Your task to perform on an android device: change alarm snooze length Image 0: 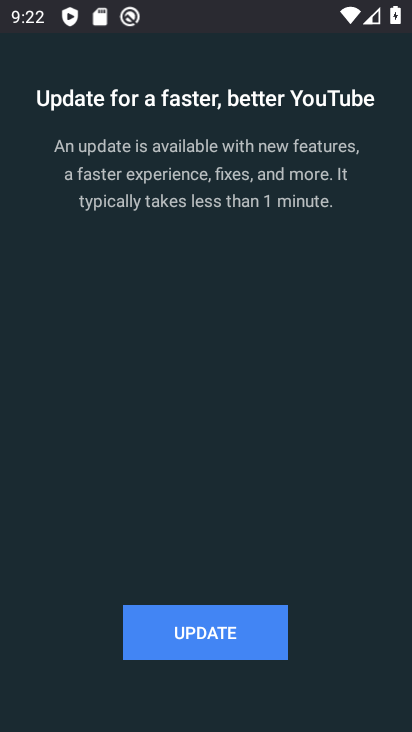
Step 0: press home button
Your task to perform on an android device: change alarm snooze length Image 1: 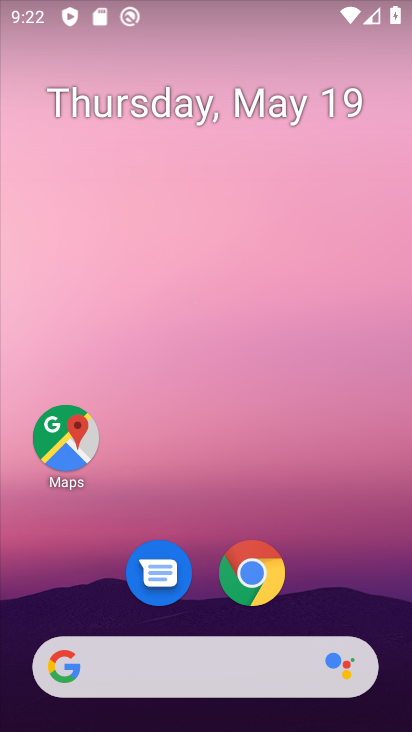
Step 1: drag from (209, 608) to (215, 271)
Your task to perform on an android device: change alarm snooze length Image 2: 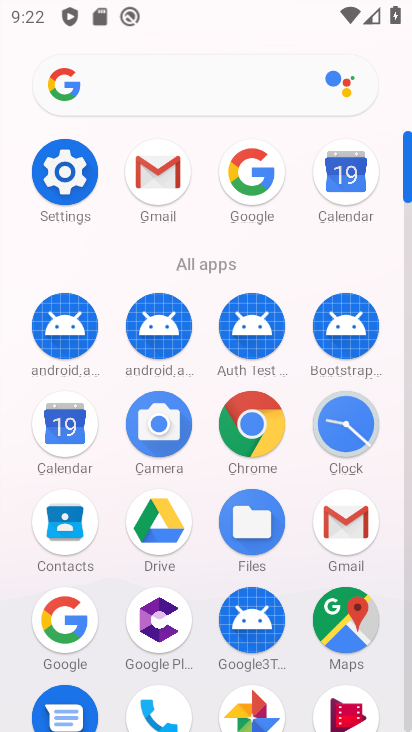
Step 2: click (337, 411)
Your task to perform on an android device: change alarm snooze length Image 3: 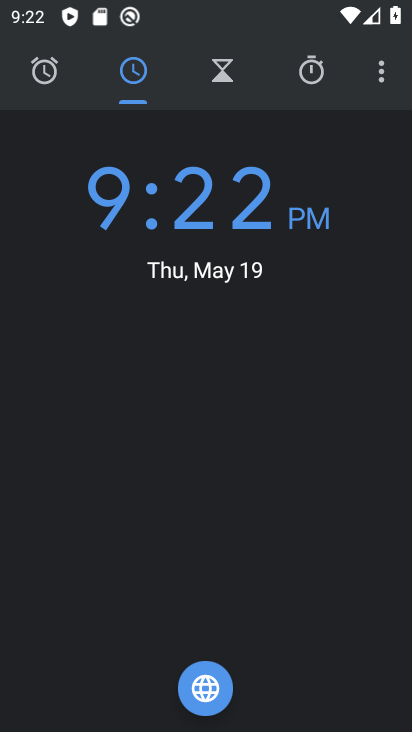
Step 3: click (382, 69)
Your task to perform on an android device: change alarm snooze length Image 4: 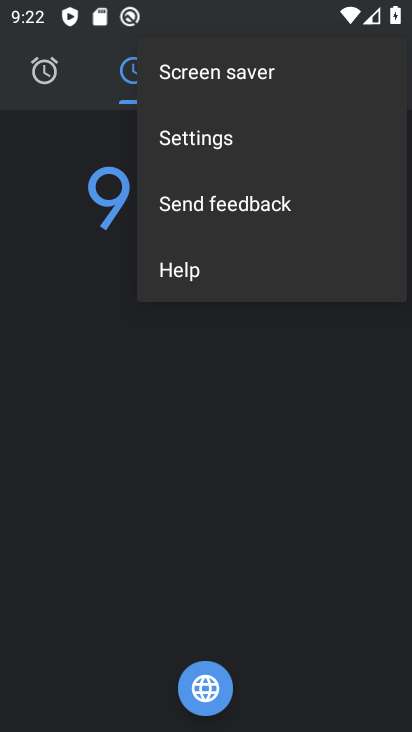
Step 4: click (283, 128)
Your task to perform on an android device: change alarm snooze length Image 5: 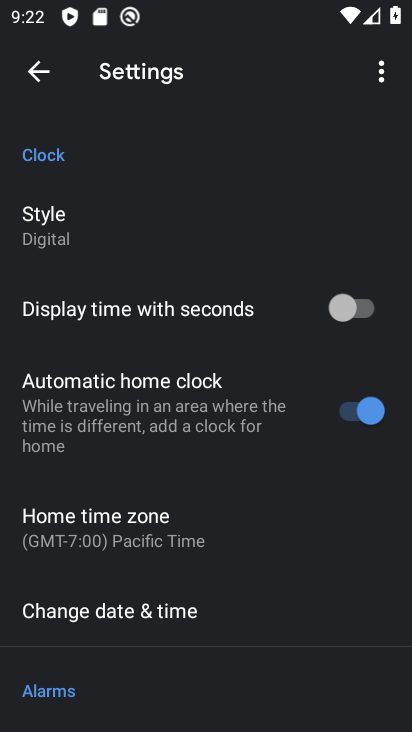
Step 5: drag from (196, 600) to (194, 256)
Your task to perform on an android device: change alarm snooze length Image 6: 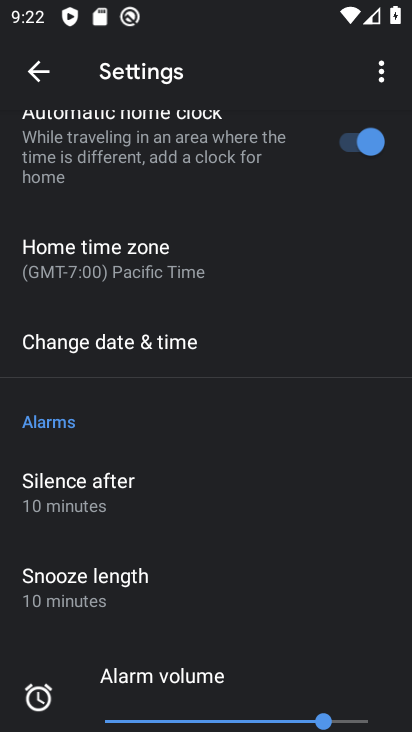
Step 6: drag from (165, 600) to (184, 379)
Your task to perform on an android device: change alarm snooze length Image 7: 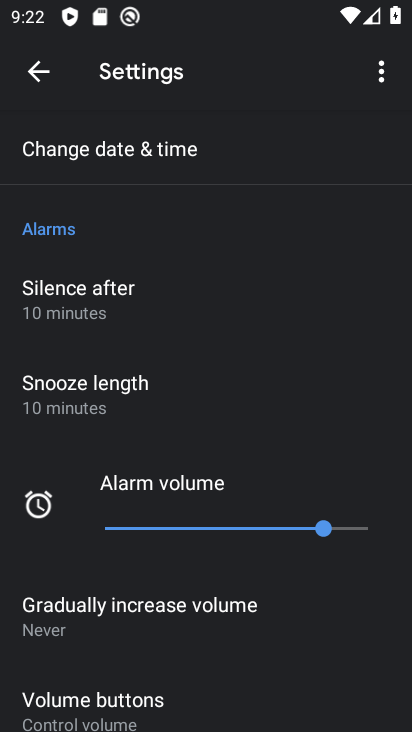
Step 7: click (174, 385)
Your task to perform on an android device: change alarm snooze length Image 8: 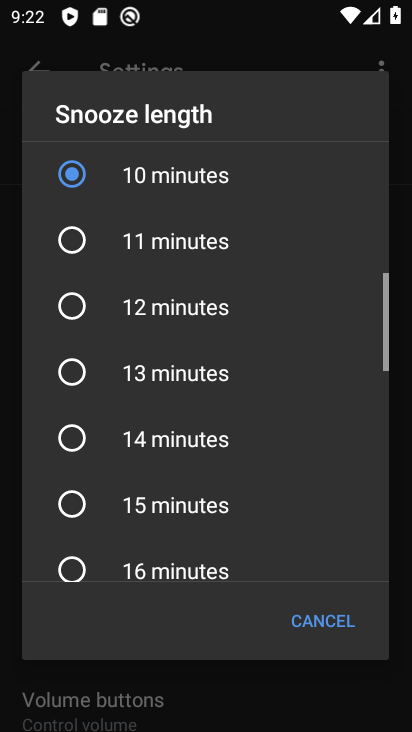
Step 8: click (180, 442)
Your task to perform on an android device: change alarm snooze length Image 9: 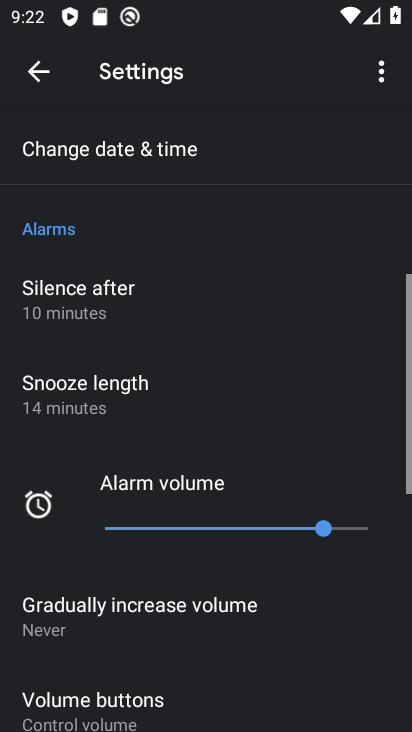
Step 9: task complete